Your task to perform on an android device: install app "Google Duo" Image 0: 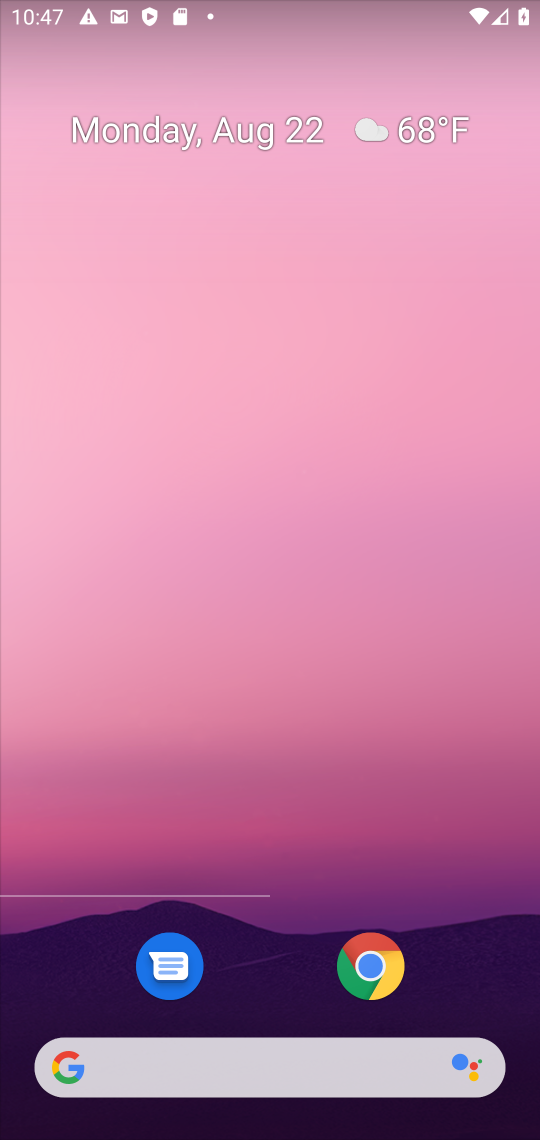
Step 0: press home button
Your task to perform on an android device: install app "Google Duo" Image 1: 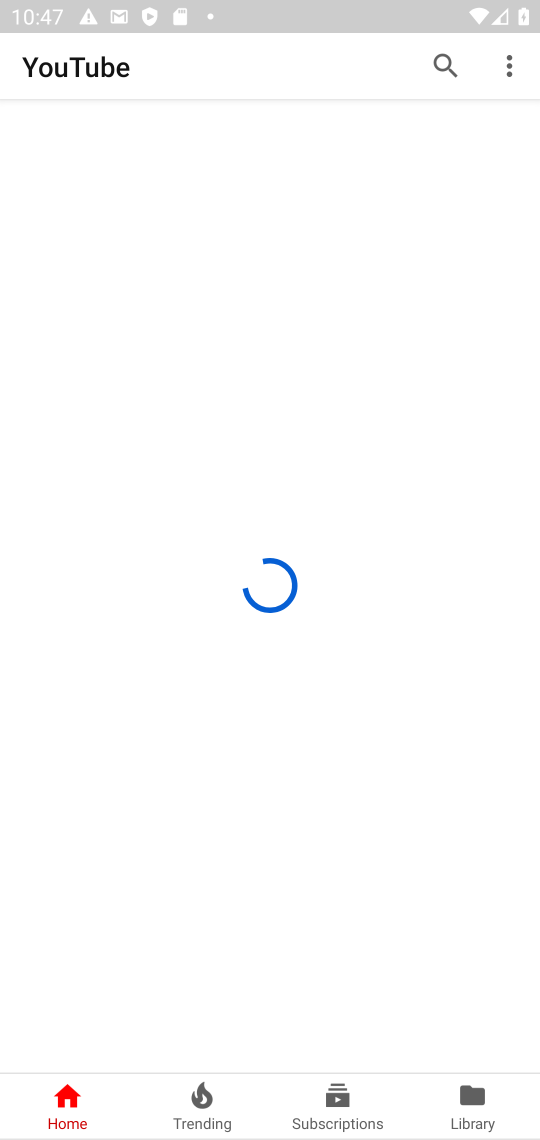
Step 1: drag from (434, 567) to (468, 178)
Your task to perform on an android device: install app "Google Duo" Image 2: 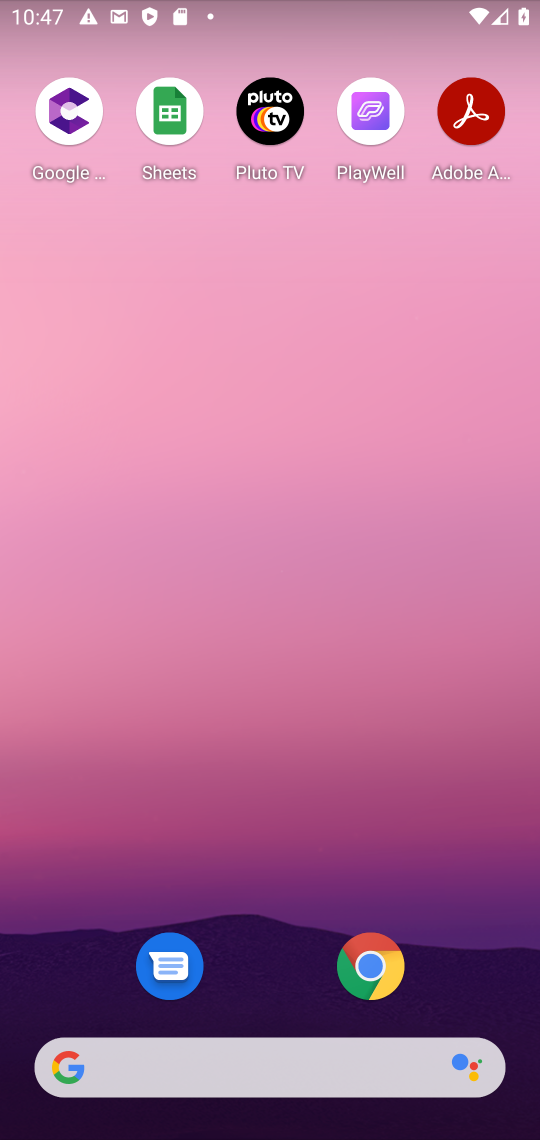
Step 2: drag from (449, 966) to (492, 136)
Your task to perform on an android device: install app "Google Duo" Image 3: 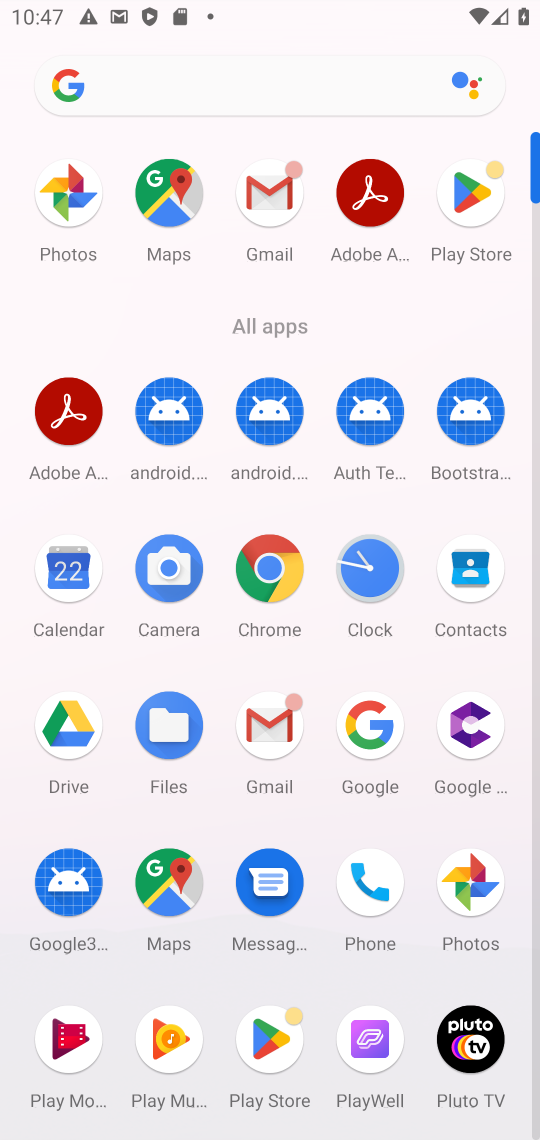
Step 3: click (462, 195)
Your task to perform on an android device: install app "Google Duo" Image 4: 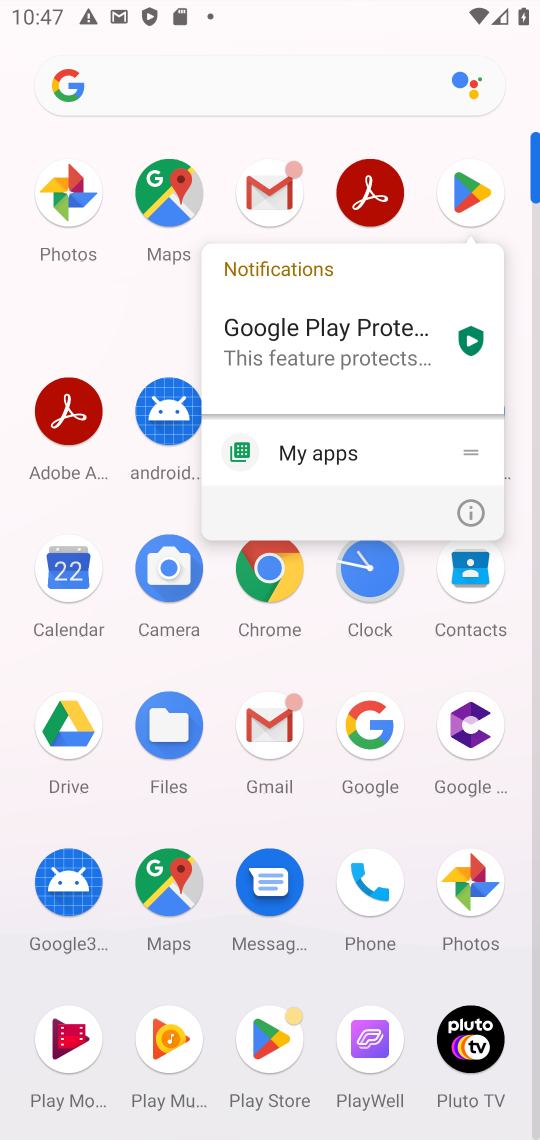
Step 4: click (479, 198)
Your task to perform on an android device: install app "Google Duo" Image 5: 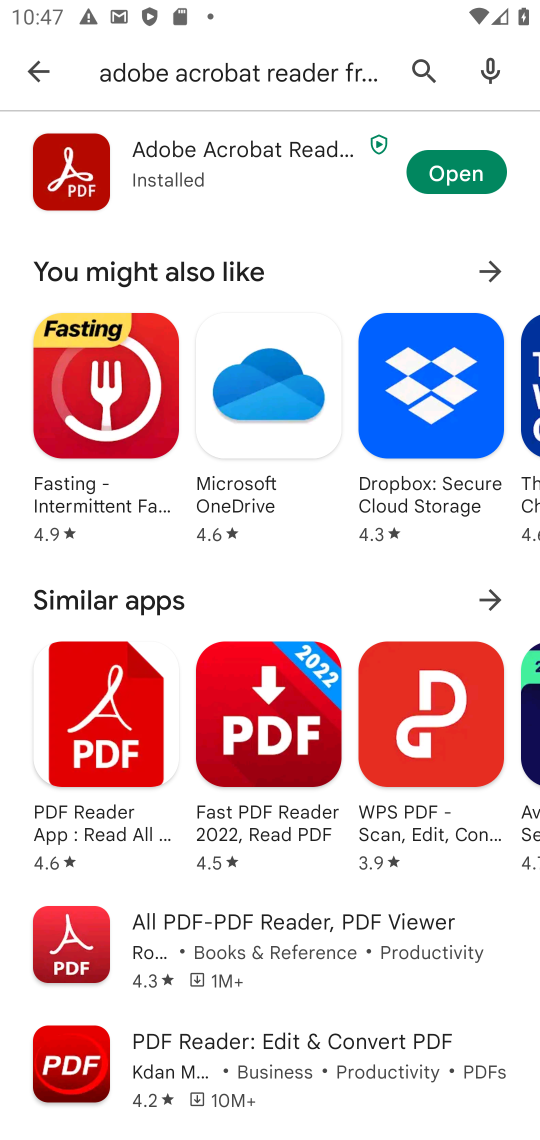
Step 5: press back button
Your task to perform on an android device: install app "Google Duo" Image 6: 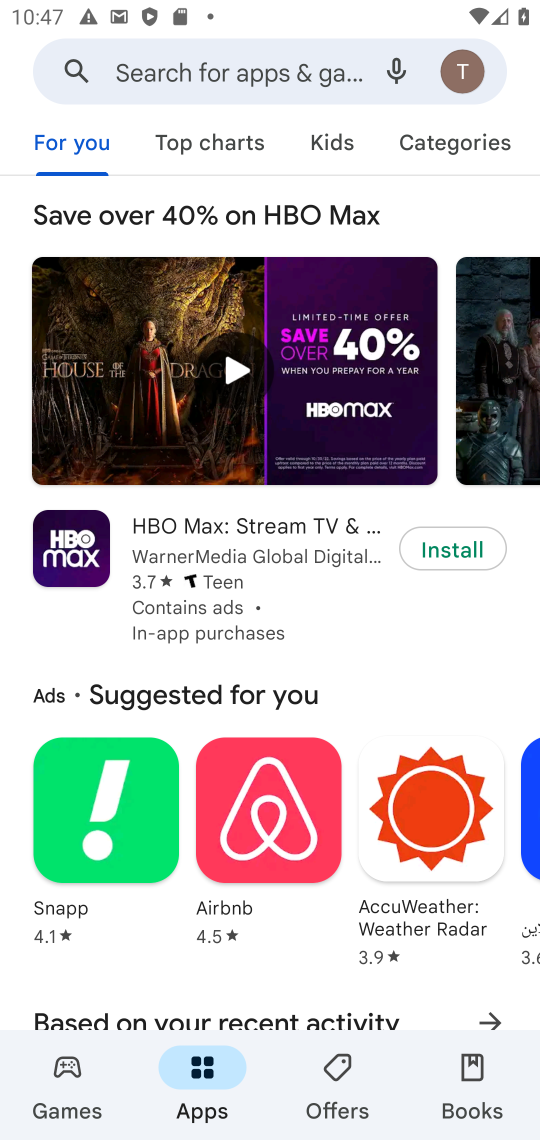
Step 6: click (250, 72)
Your task to perform on an android device: install app "Google Duo" Image 7: 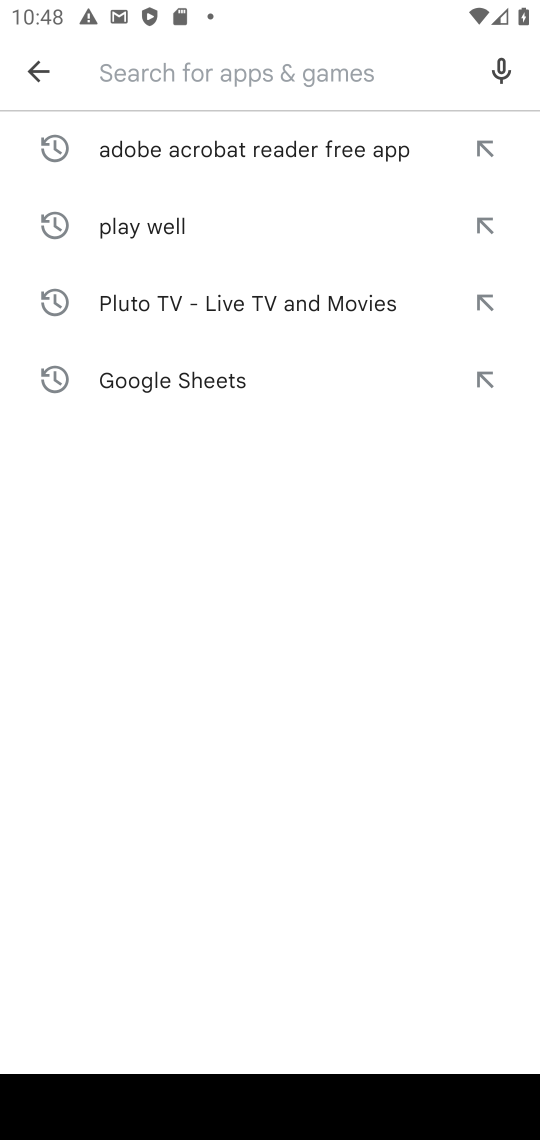
Step 7: type "Google Duo"
Your task to perform on an android device: install app "Google Duo" Image 8: 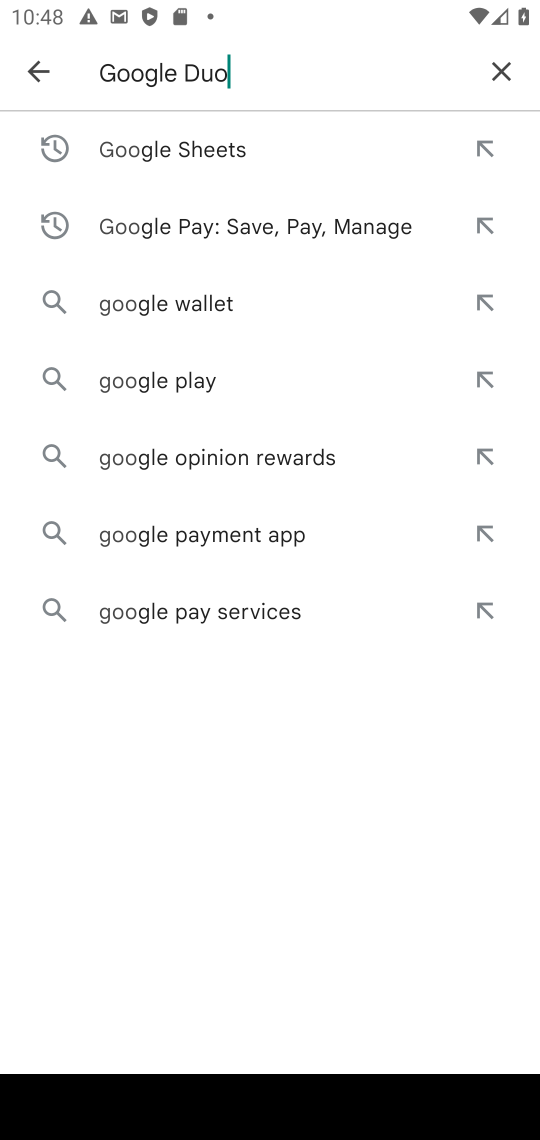
Step 8: press enter
Your task to perform on an android device: install app "Google Duo" Image 9: 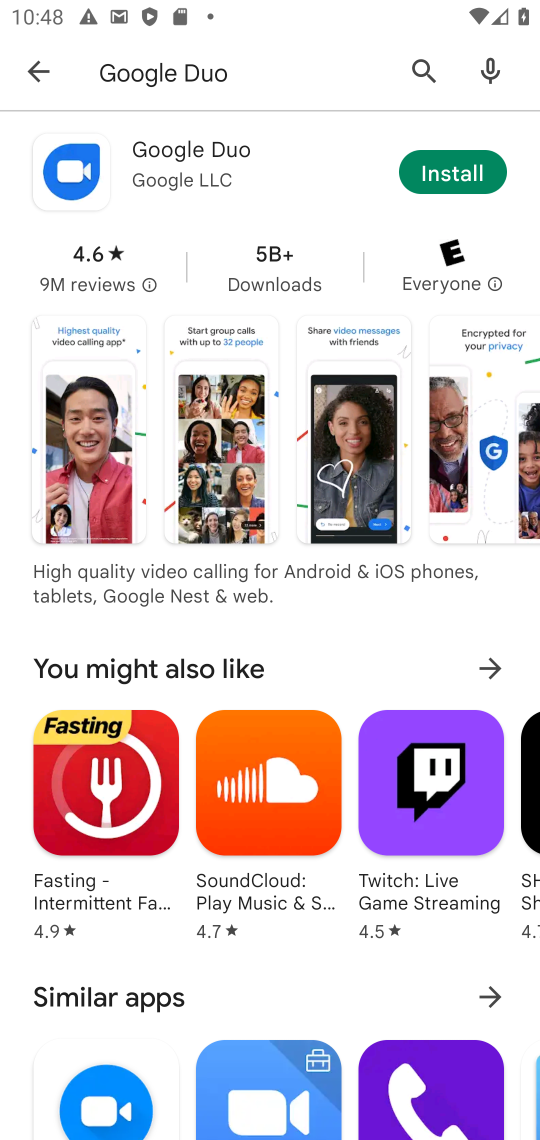
Step 9: click (458, 180)
Your task to perform on an android device: install app "Google Duo" Image 10: 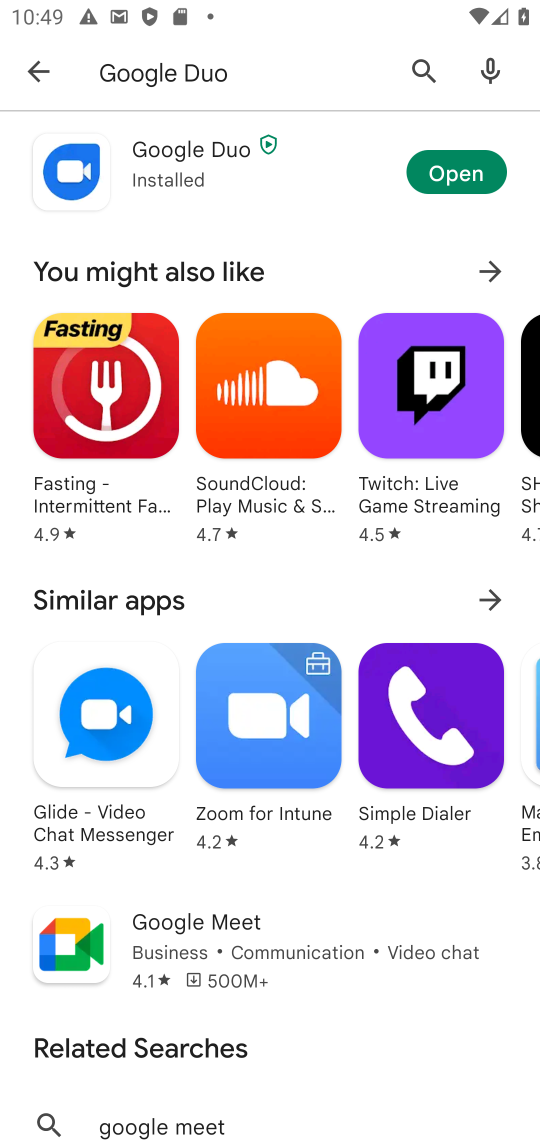
Step 10: task complete